Your task to perform on an android device: Search for Italian restaurants on Maps Image 0: 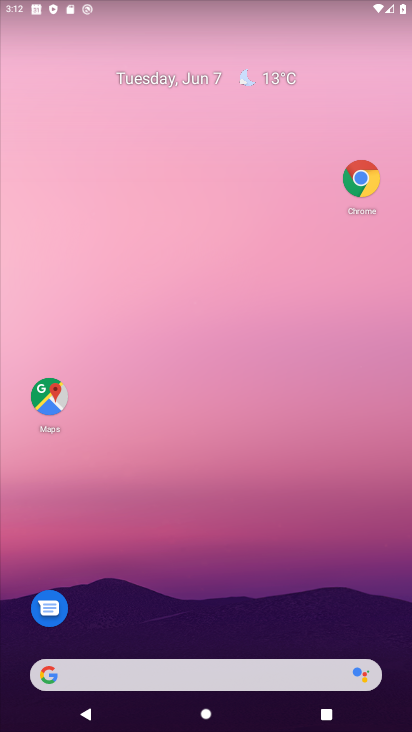
Step 0: click (50, 398)
Your task to perform on an android device: Search for Italian restaurants on Maps Image 1: 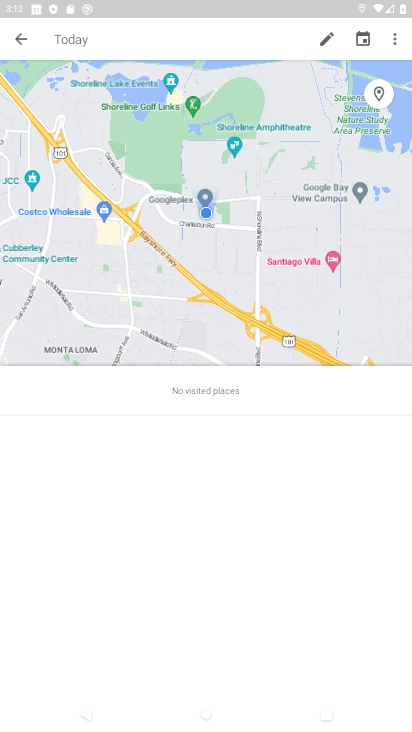
Step 1: press back button
Your task to perform on an android device: Search for Italian restaurants on Maps Image 2: 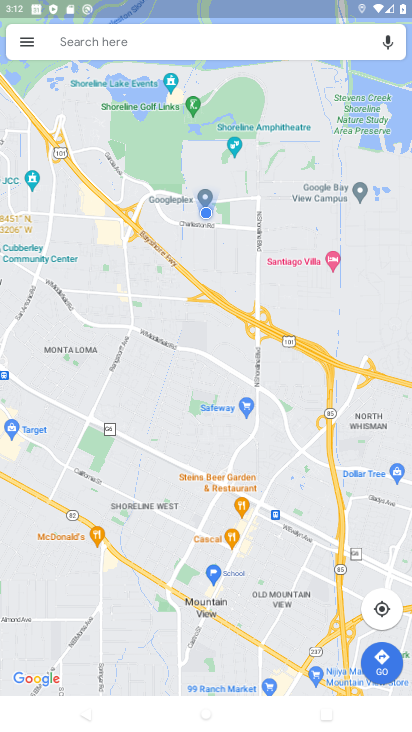
Step 2: click (135, 47)
Your task to perform on an android device: Search for Italian restaurants on Maps Image 3: 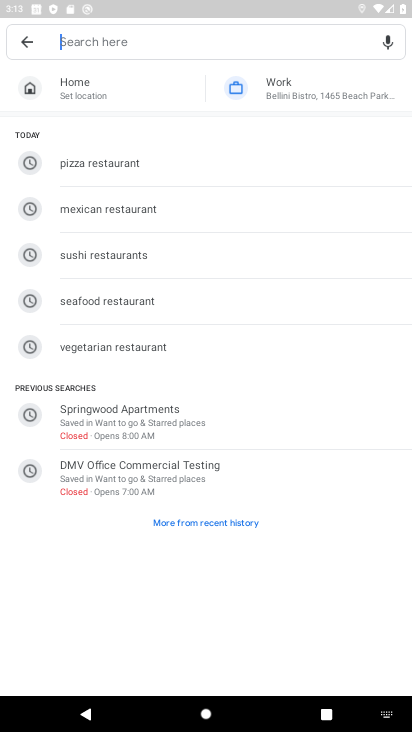
Step 3: type "Italian restaurants"
Your task to perform on an android device: Search for Italian restaurants on Maps Image 4: 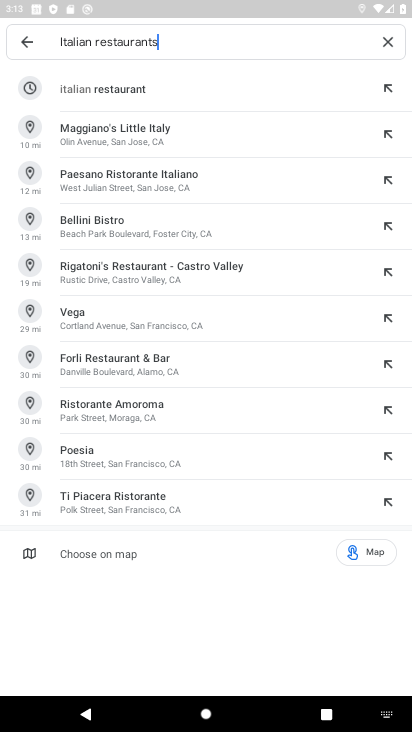
Step 4: click (203, 90)
Your task to perform on an android device: Search for Italian restaurants on Maps Image 5: 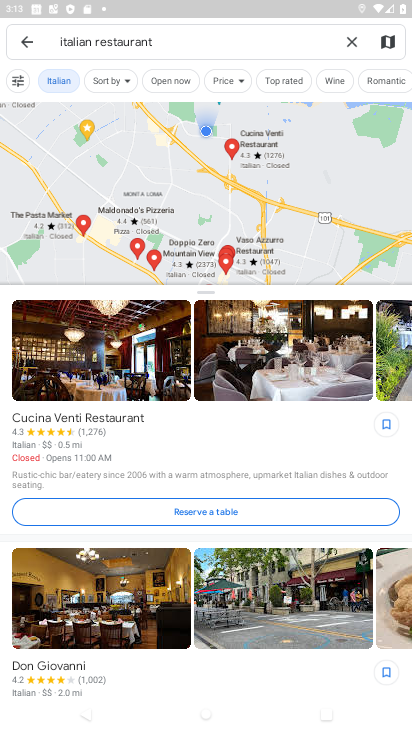
Step 5: task complete